Your task to perform on an android device: Turn off the flashlight Image 0: 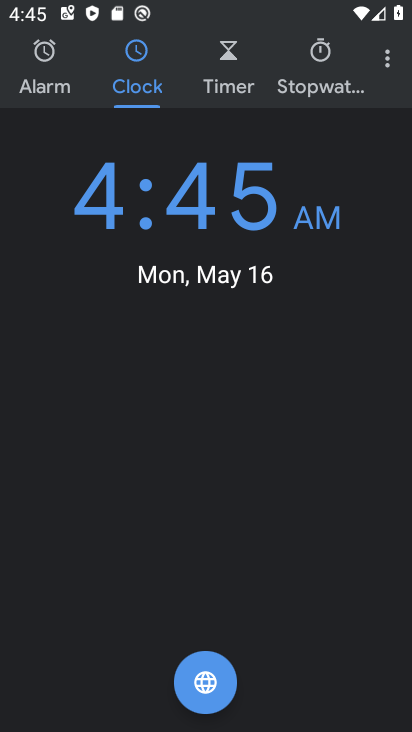
Step 0: drag from (209, 4) to (209, 487)
Your task to perform on an android device: Turn off the flashlight Image 1: 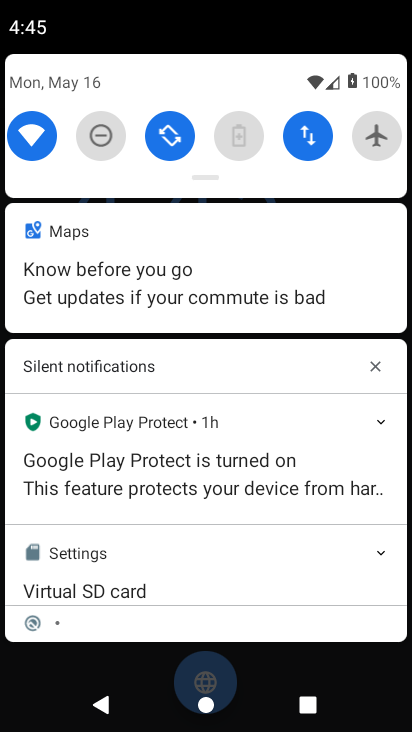
Step 1: drag from (174, 130) to (182, 481)
Your task to perform on an android device: Turn off the flashlight Image 2: 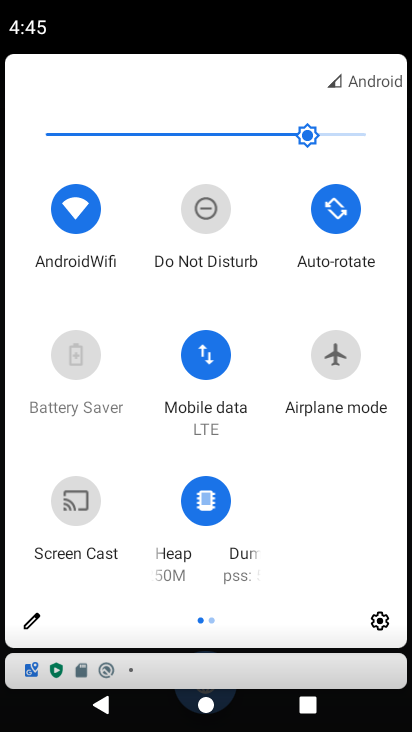
Step 2: drag from (367, 432) to (23, 540)
Your task to perform on an android device: Turn off the flashlight Image 3: 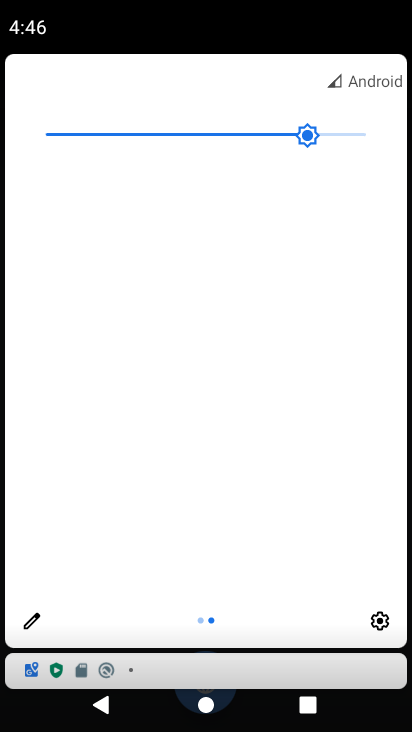
Step 3: click (34, 612)
Your task to perform on an android device: Turn off the flashlight Image 4: 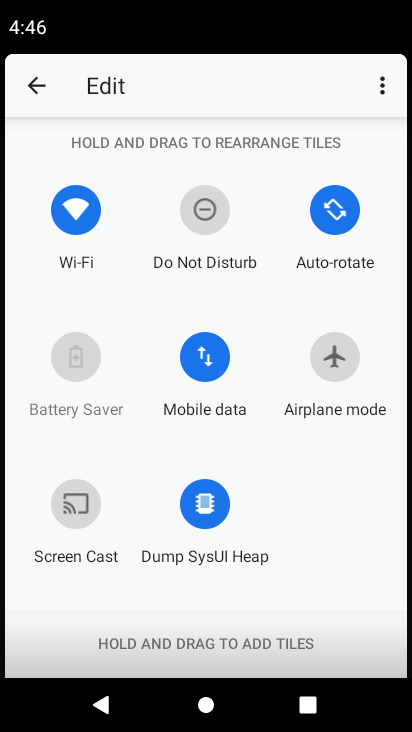
Step 4: task complete